Your task to perform on an android device: all mails in gmail Image 0: 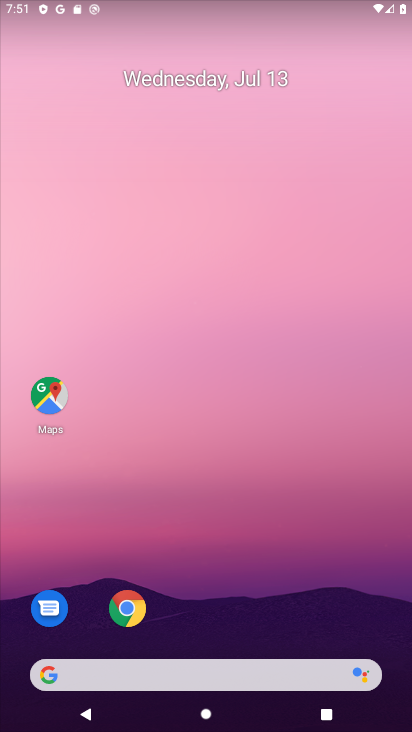
Step 0: drag from (260, 656) to (155, 33)
Your task to perform on an android device: all mails in gmail Image 1: 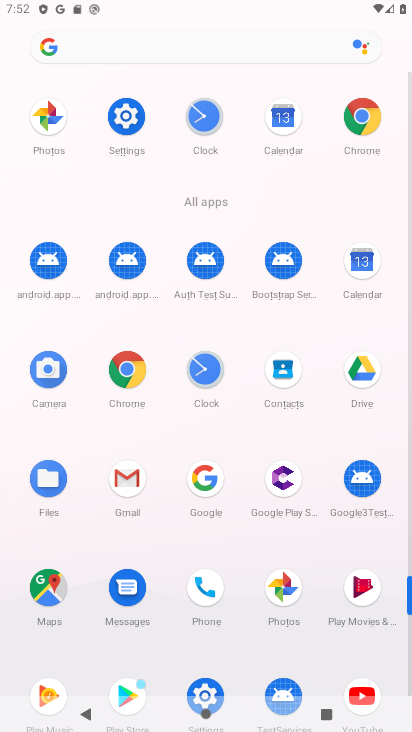
Step 1: click (125, 476)
Your task to perform on an android device: all mails in gmail Image 2: 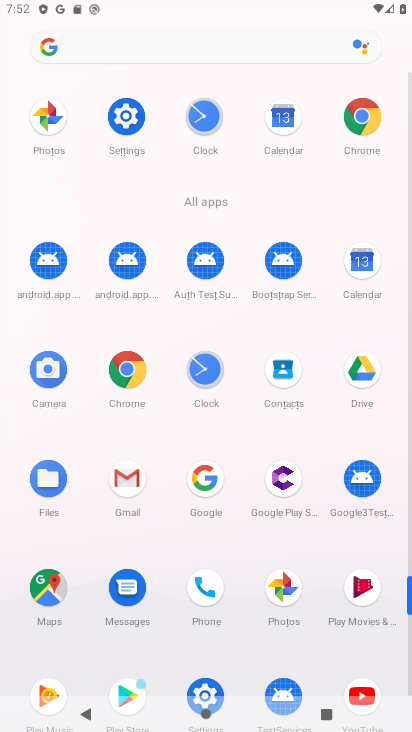
Step 2: click (129, 477)
Your task to perform on an android device: all mails in gmail Image 3: 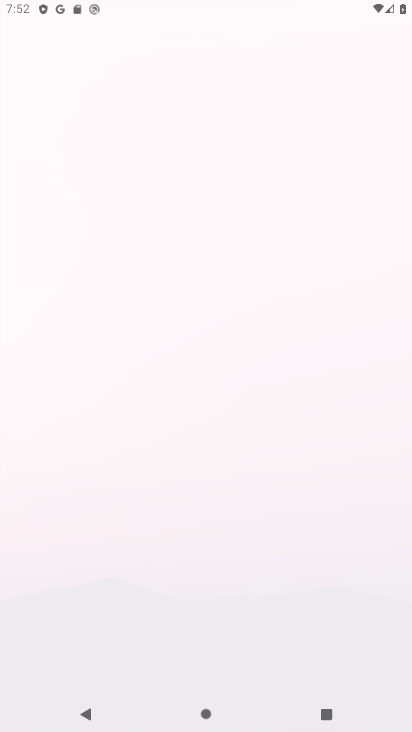
Step 3: click (130, 478)
Your task to perform on an android device: all mails in gmail Image 4: 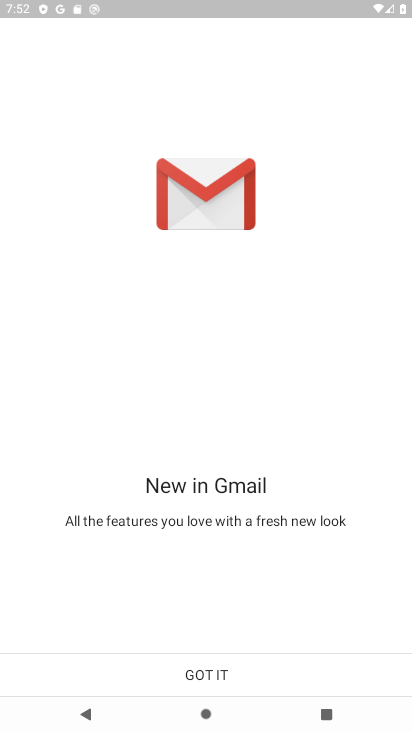
Step 4: click (130, 478)
Your task to perform on an android device: all mails in gmail Image 5: 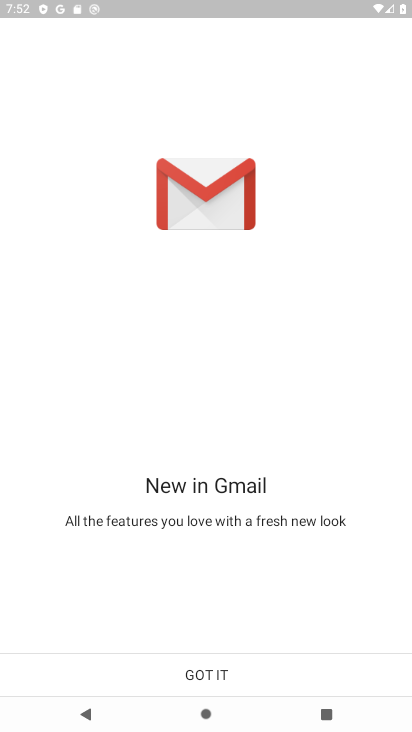
Step 5: click (130, 478)
Your task to perform on an android device: all mails in gmail Image 6: 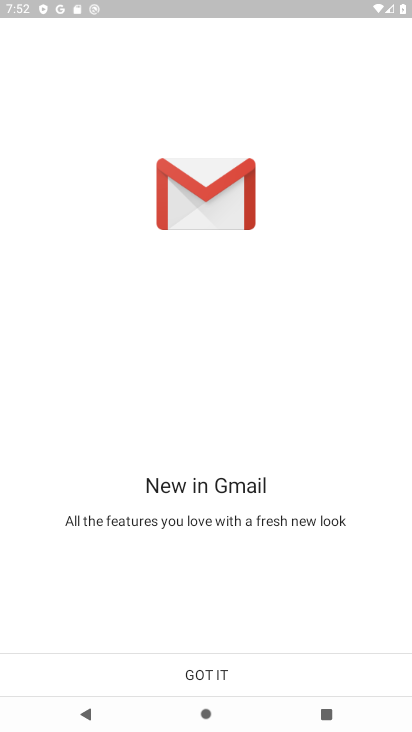
Step 6: click (131, 478)
Your task to perform on an android device: all mails in gmail Image 7: 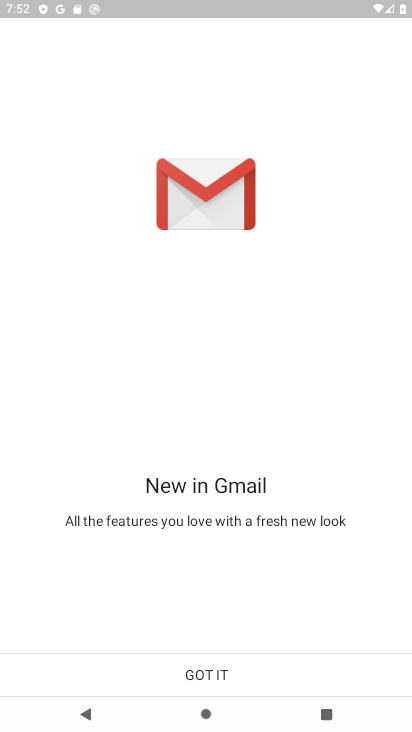
Step 7: click (210, 678)
Your task to perform on an android device: all mails in gmail Image 8: 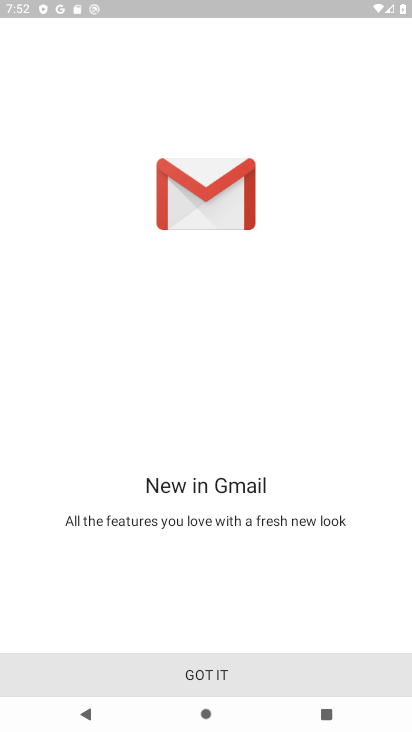
Step 8: click (212, 670)
Your task to perform on an android device: all mails in gmail Image 9: 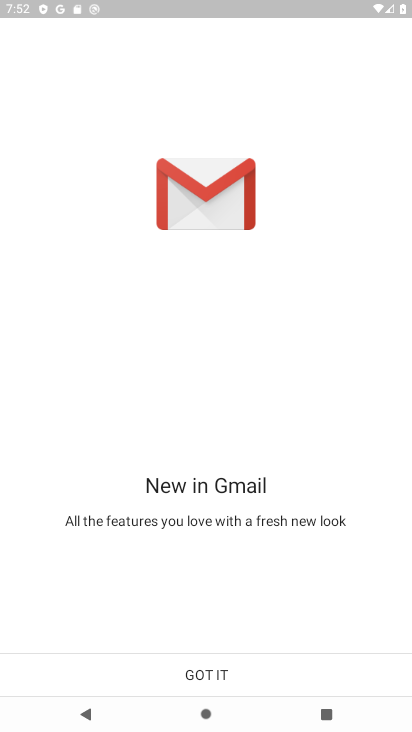
Step 9: click (214, 672)
Your task to perform on an android device: all mails in gmail Image 10: 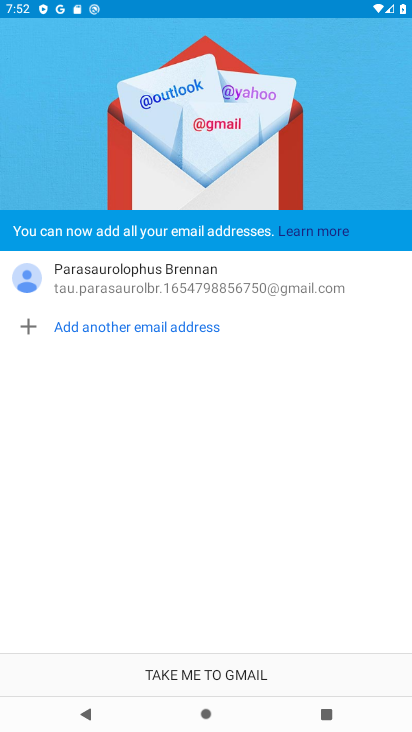
Step 10: click (222, 676)
Your task to perform on an android device: all mails in gmail Image 11: 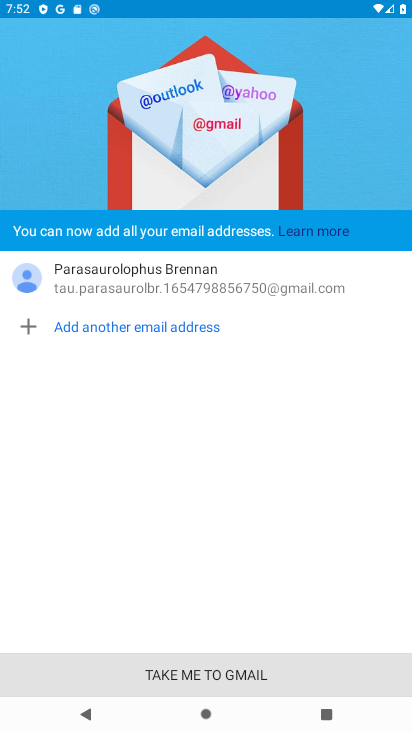
Step 11: click (225, 673)
Your task to perform on an android device: all mails in gmail Image 12: 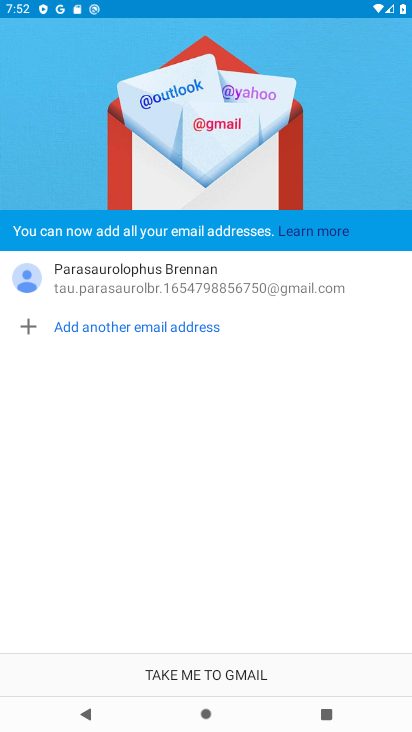
Step 12: click (228, 671)
Your task to perform on an android device: all mails in gmail Image 13: 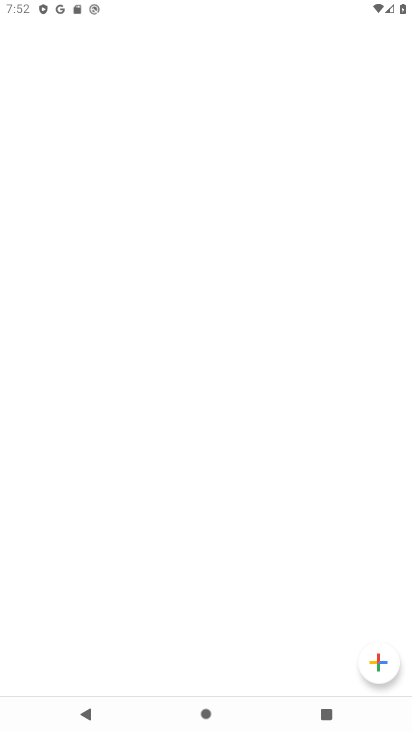
Step 13: click (235, 669)
Your task to perform on an android device: all mails in gmail Image 14: 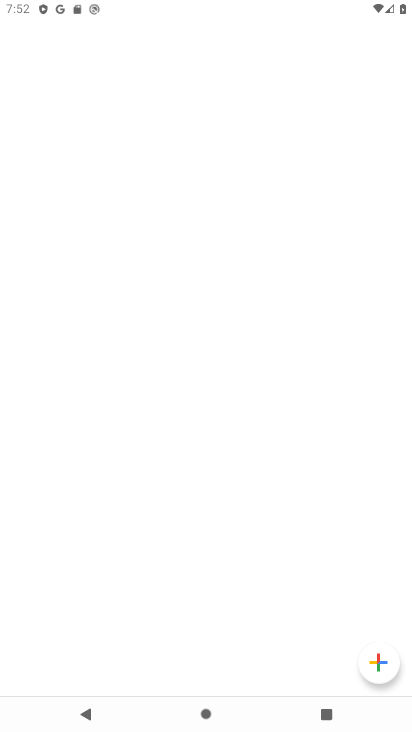
Step 14: click (241, 661)
Your task to perform on an android device: all mails in gmail Image 15: 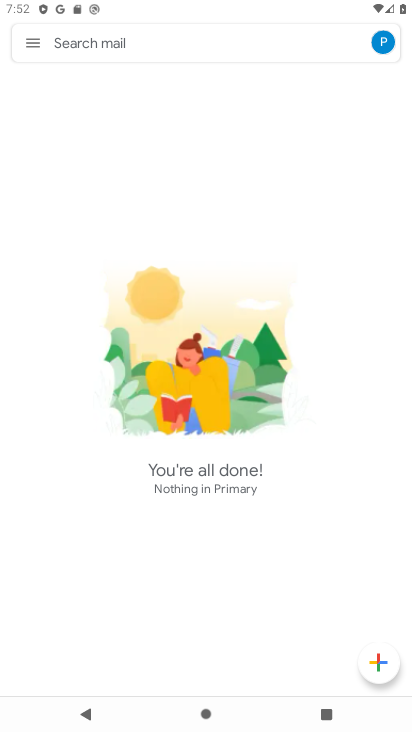
Step 15: task complete